Your task to perform on an android device: Open calendar and show me the first week of next month Image 0: 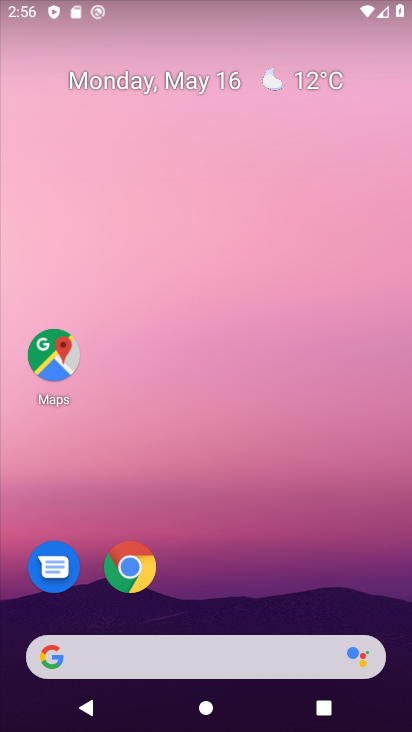
Step 0: drag from (168, 635) to (272, 8)
Your task to perform on an android device: Open calendar and show me the first week of next month Image 1: 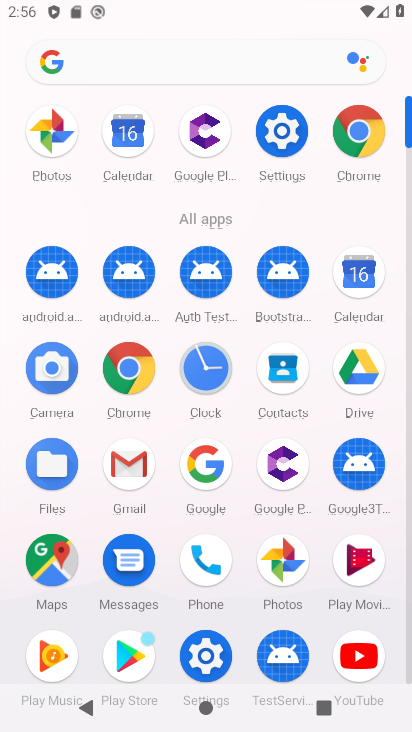
Step 1: click (352, 275)
Your task to perform on an android device: Open calendar and show me the first week of next month Image 2: 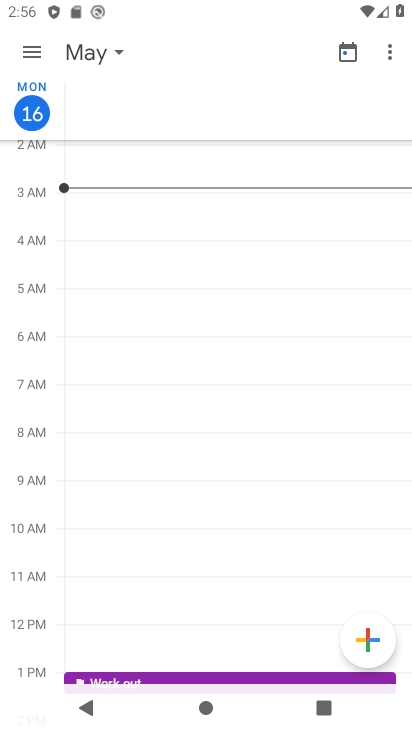
Step 2: click (38, 57)
Your task to perform on an android device: Open calendar and show me the first week of next month Image 3: 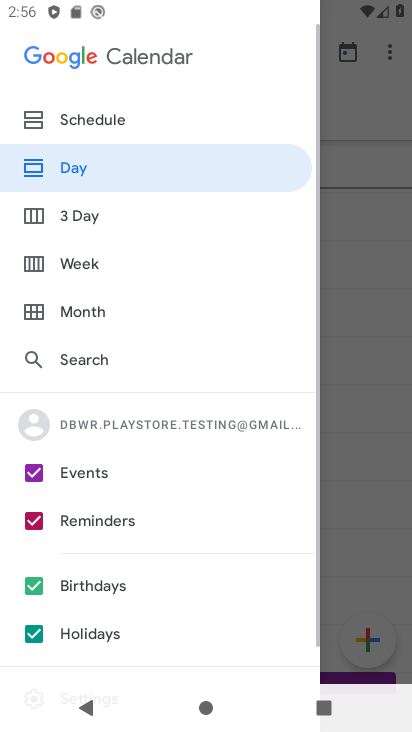
Step 3: click (119, 260)
Your task to perform on an android device: Open calendar and show me the first week of next month Image 4: 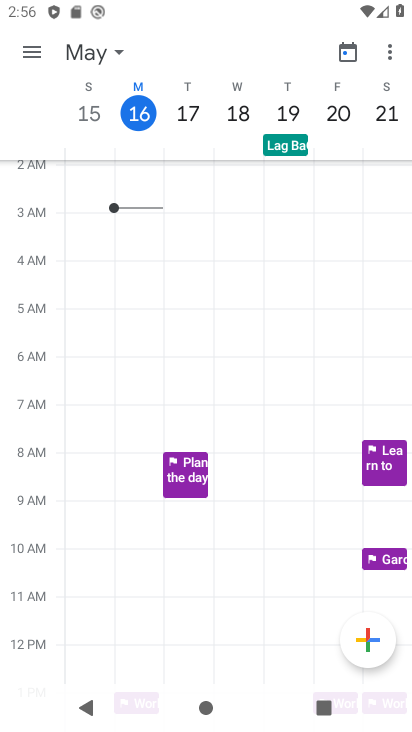
Step 4: click (90, 55)
Your task to perform on an android device: Open calendar and show me the first week of next month Image 5: 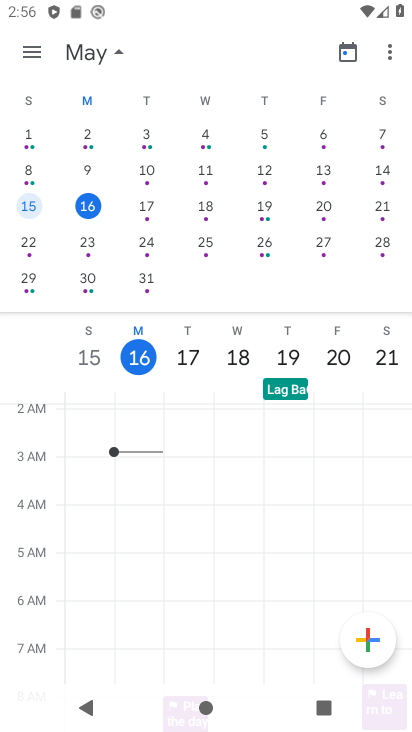
Step 5: drag from (347, 249) to (10, 233)
Your task to perform on an android device: Open calendar and show me the first week of next month Image 6: 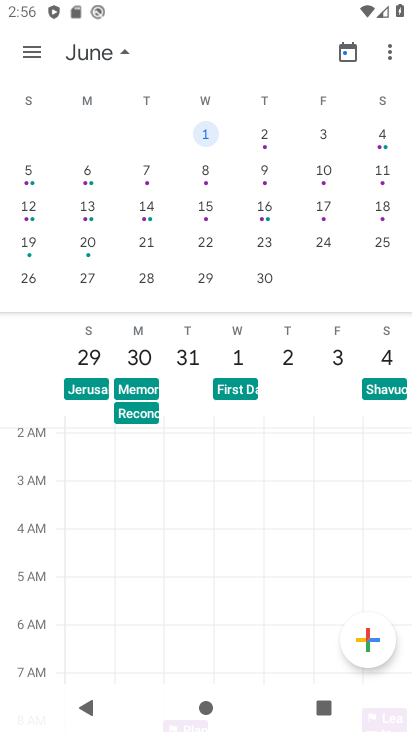
Step 6: click (28, 175)
Your task to perform on an android device: Open calendar and show me the first week of next month Image 7: 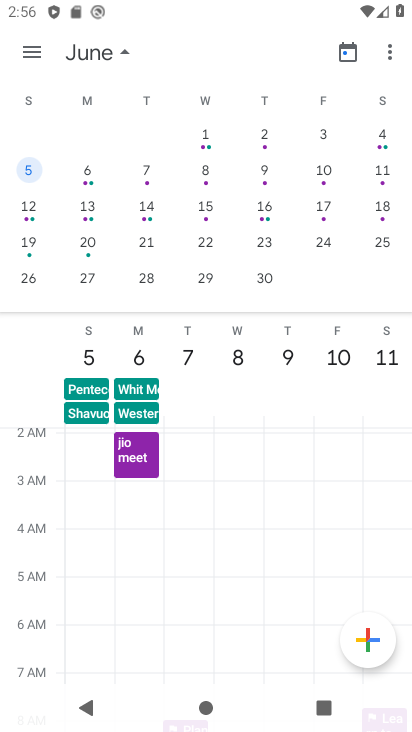
Step 7: click (120, 51)
Your task to perform on an android device: Open calendar and show me the first week of next month Image 8: 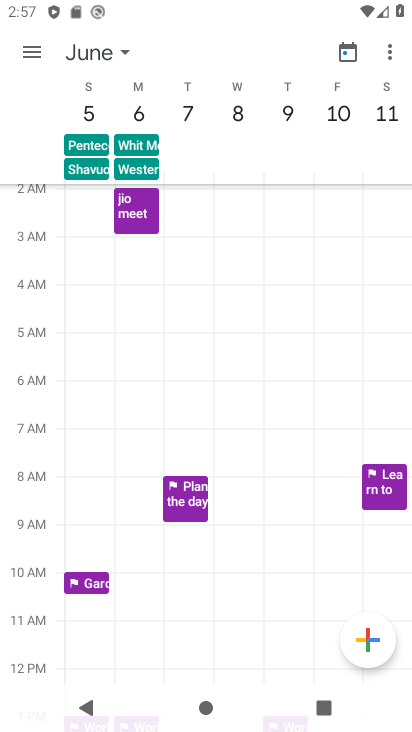
Step 8: task complete